Your task to perform on an android device: Check the news Image 0: 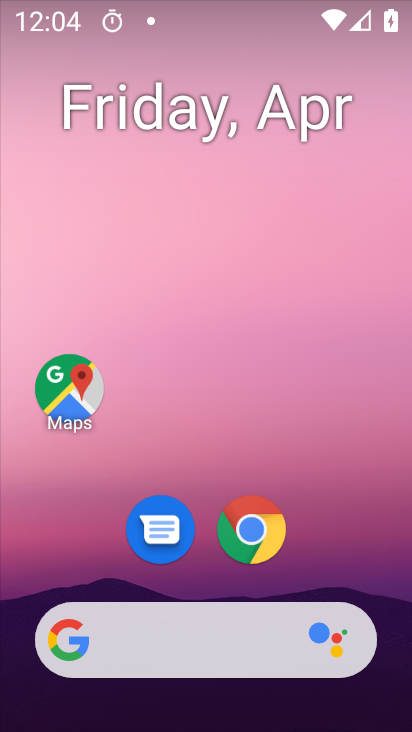
Step 0: drag from (213, 590) to (270, 163)
Your task to perform on an android device: Check the news Image 1: 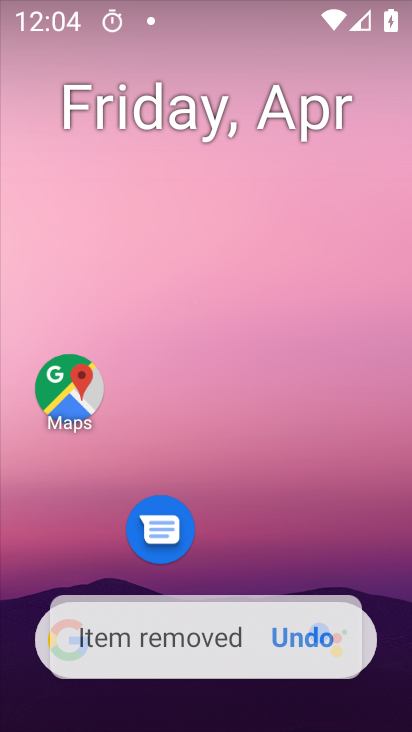
Step 1: drag from (223, 563) to (299, 64)
Your task to perform on an android device: Check the news Image 2: 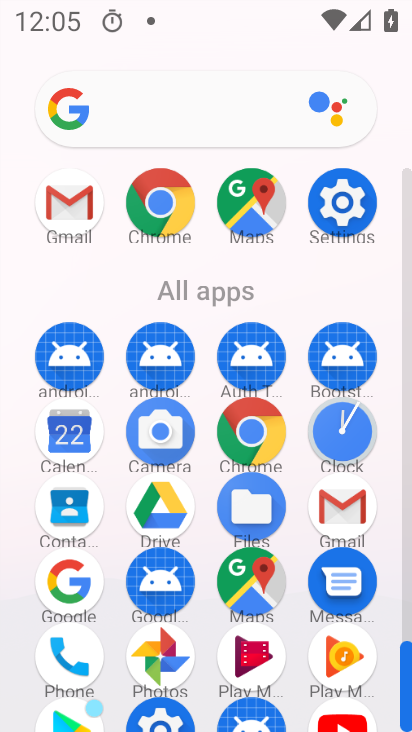
Step 2: click (168, 123)
Your task to perform on an android device: Check the news Image 3: 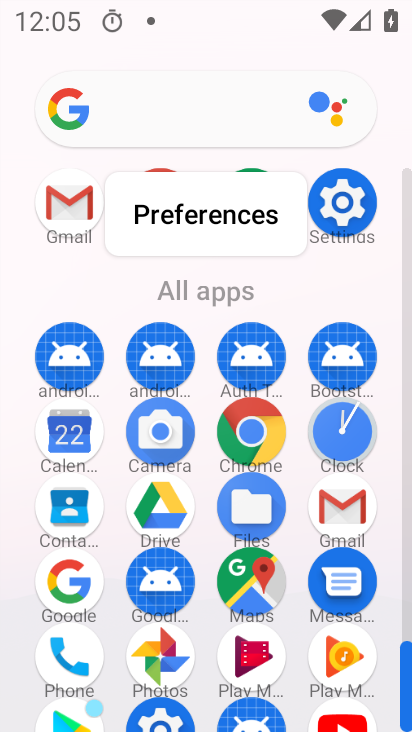
Step 3: click (177, 112)
Your task to perform on an android device: Check the news Image 4: 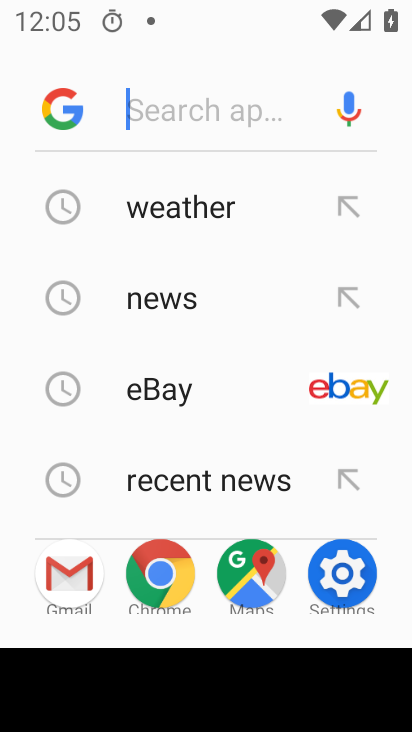
Step 4: click (234, 312)
Your task to perform on an android device: Check the news Image 5: 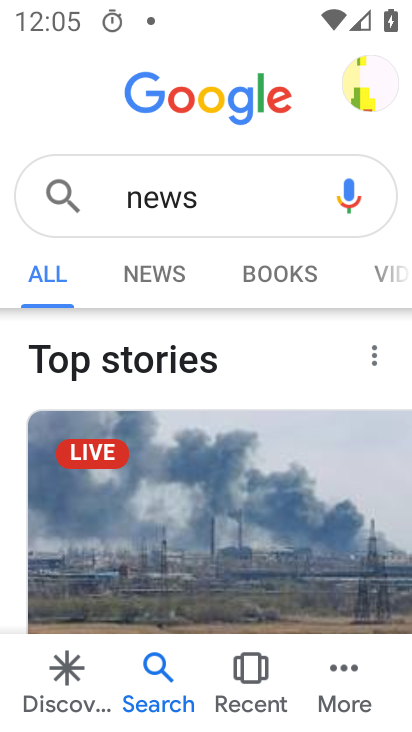
Step 5: task complete